Your task to perform on an android device: Open Google Chrome and click the shortcut for Amazon.com Image 0: 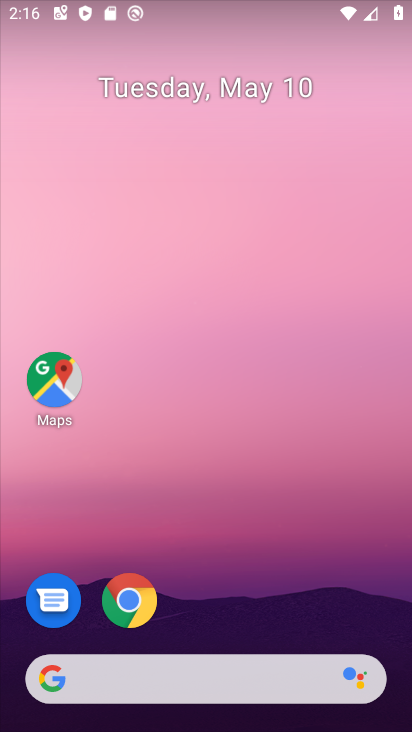
Step 0: drag from (185, 637) to (182, 274)
Your task to perform on an android device: Open Google Chrome and click the shortcut for Amazon.com Image 1: 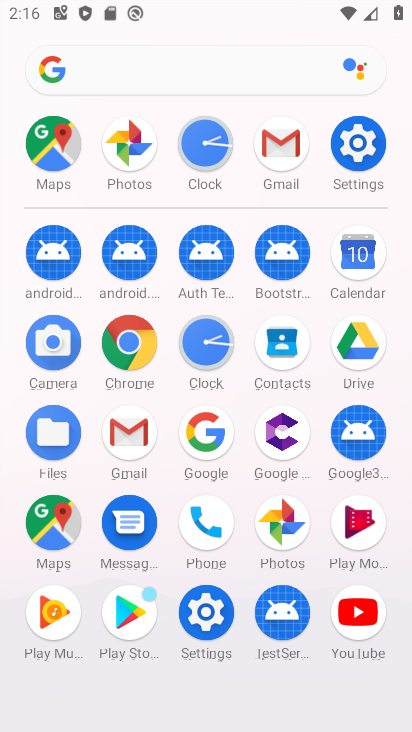
Step 1: click (143, 348)
Your task to perform on an android device: Open Google Chrome and click the shortcut for Amazon.com Image 2: 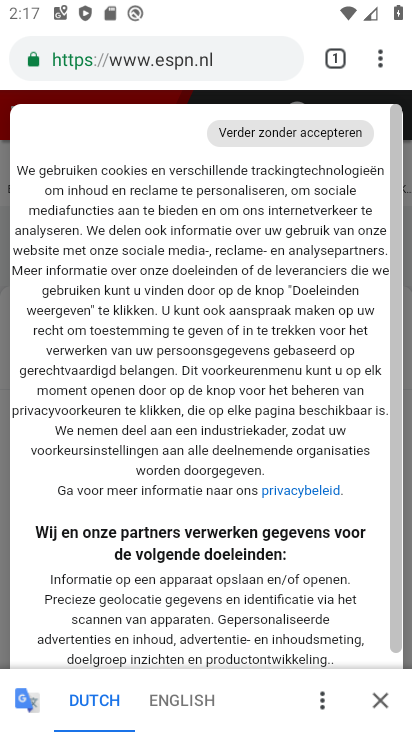
Step 2: click (221, 52)
Your task to perform on an android device: Open Google Chrome and click the shortcut for Amazon.com Image 3: 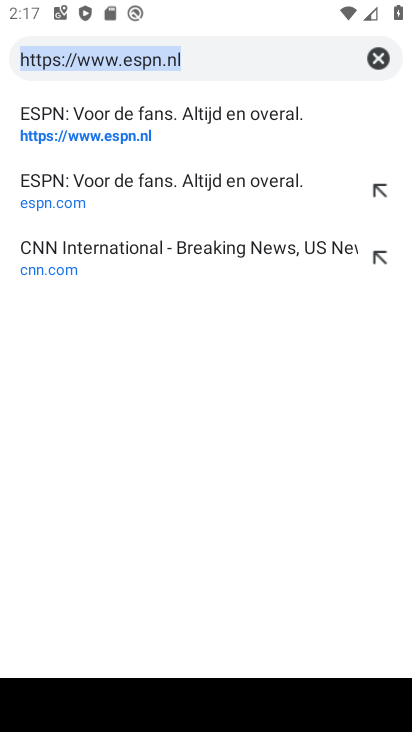
Step 3: type "amazon"
Your task to perform on an android device: Open Google Chrome and click the shortcut for Amazon.com Image 4: 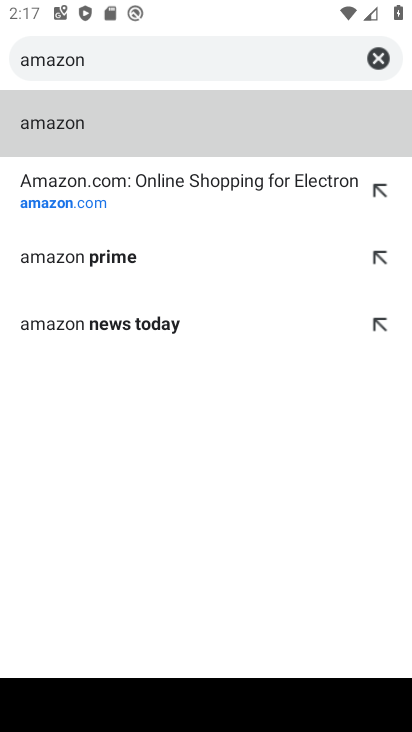
Step 4: click (216, 203)
Your task to perform on an android device: Open Google Chrome and click the shortcut for Amazon.com Image 5: 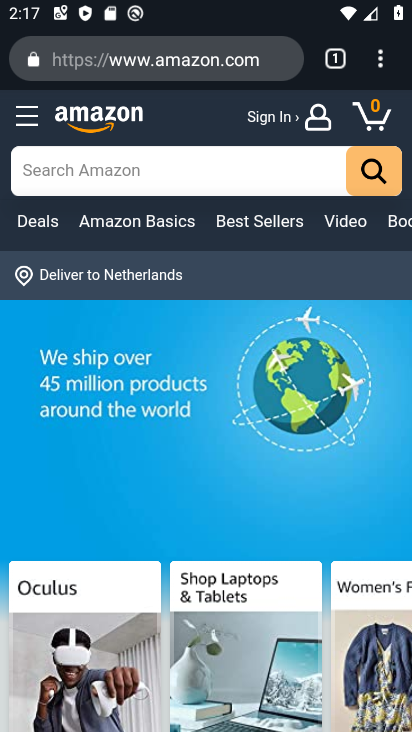
Step 5: task complete